Your task to perform on an android device: check data usage Image 0: 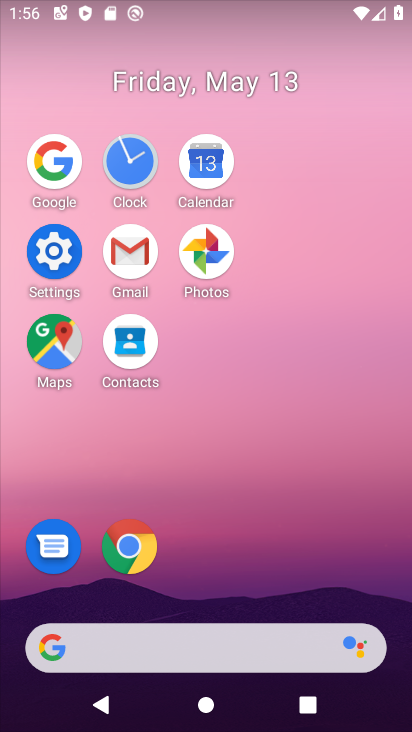
Step 0: click (57, 273)
Your task to perform on an android device: check data usage Image 1: 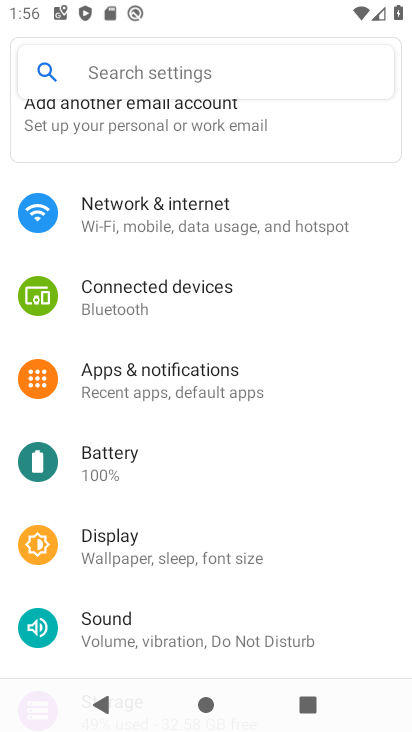
Step 1: click (140, 230)
Your task to perform on an android device: check data usage Image 2: 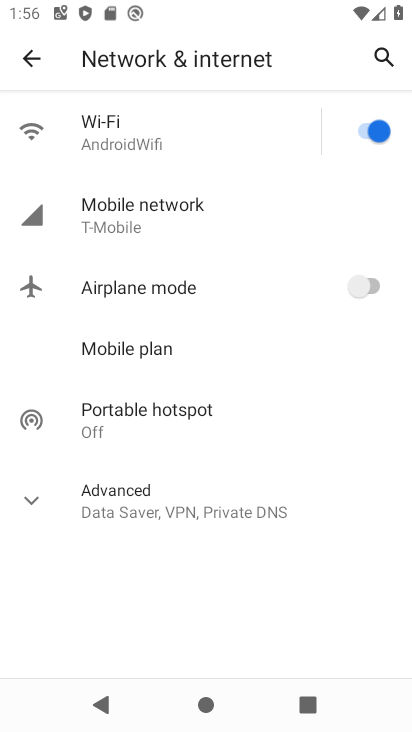
Step 2: click (115, 233)
Your task to perform on an android device: check data usage Image 3: 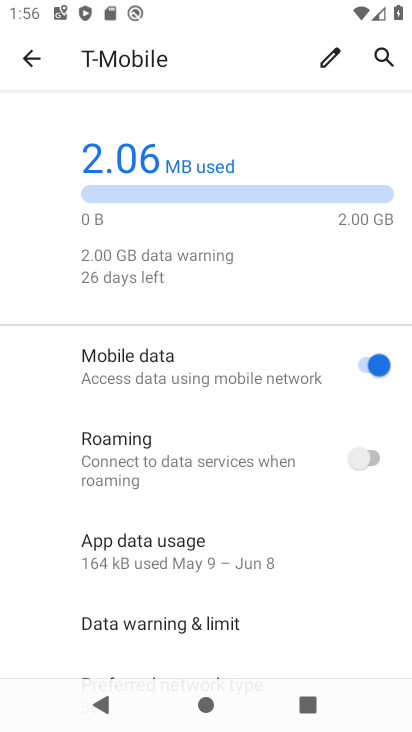
Step 3: task complete